Your task to perform on an android device: Is it going to rain tomorrow? Image 0: 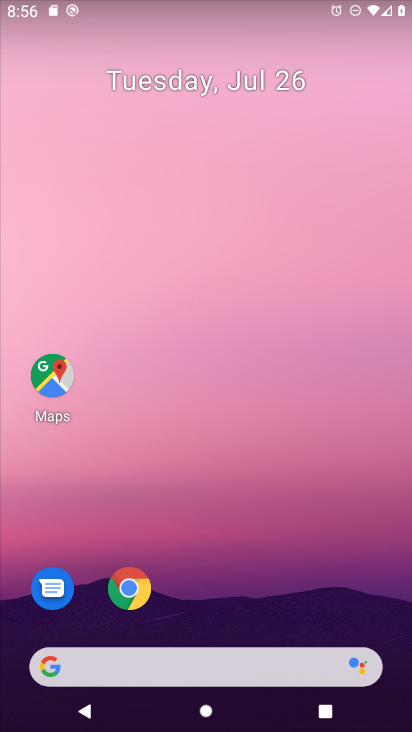
Step 0: drag from (195, 587) to (247, 102)
Your task to perform on an android device: Is it going to rain tomorrow? Image 1: 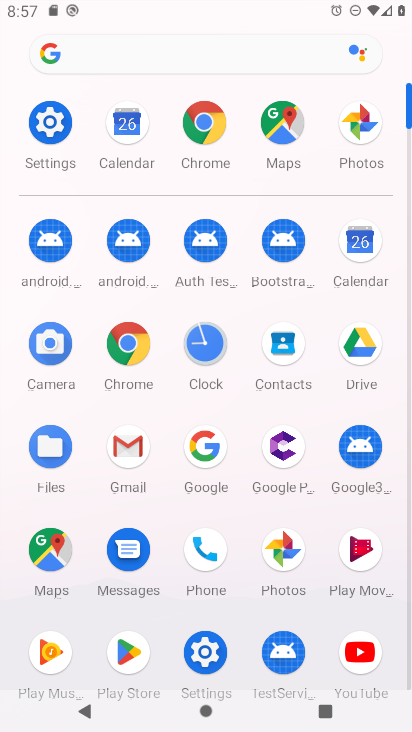
Step 1: click (199, 462)
Your task to perform on an android device: Is it going to rain tomorrow? Image 2: 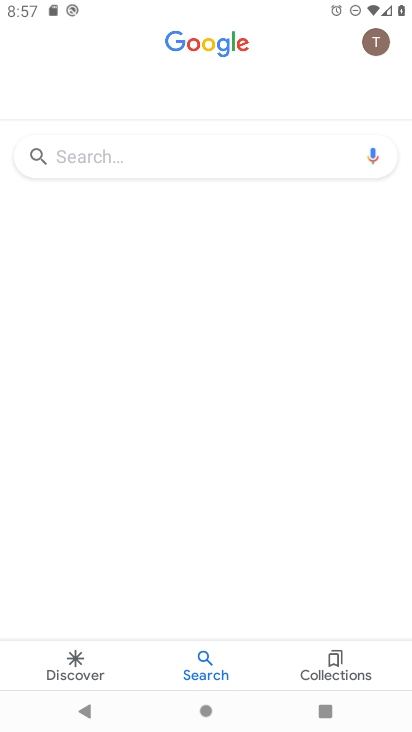
Step 2: click (238, 137)
Your task to perform on an android device: Is it going to rain tomorrow? Image 3: 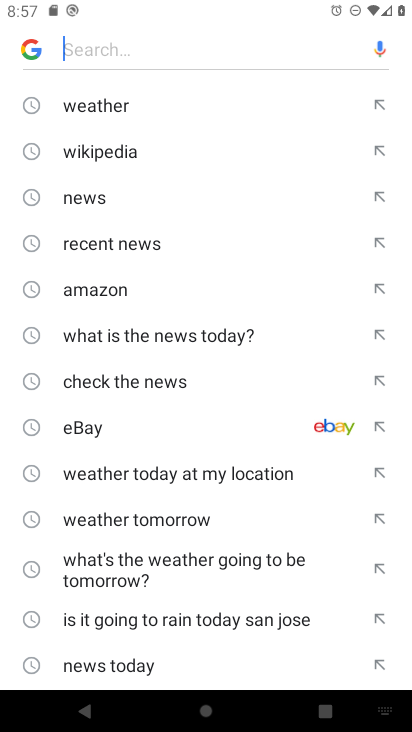
Step 3: click (108, 106)
Your task to perform on an android device: Is it going to rain tomorrow? Image 4: 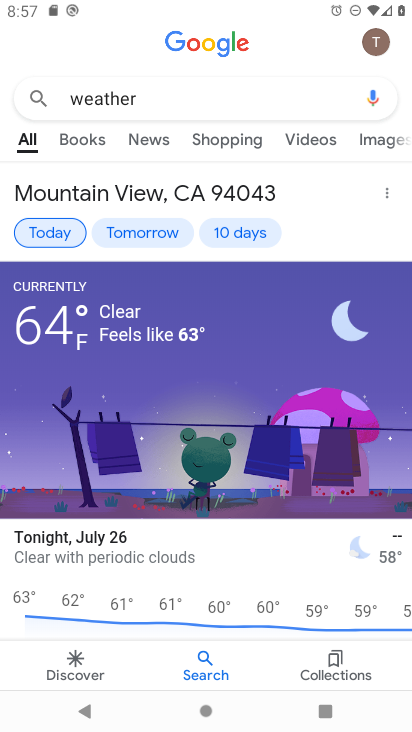
Step 4: click (136, 227)
Your task to perform on an android device: Is it going to rain tomorrow? Image 5: 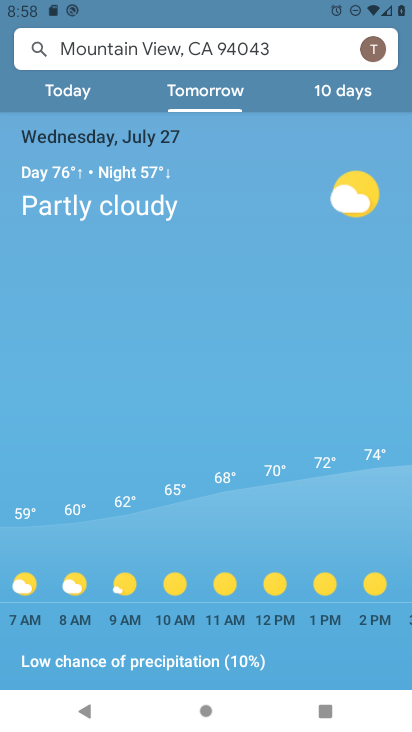
Step 5: press home button
Your task to perform on an android device: Is it going to rain tomorrow? Image 6: 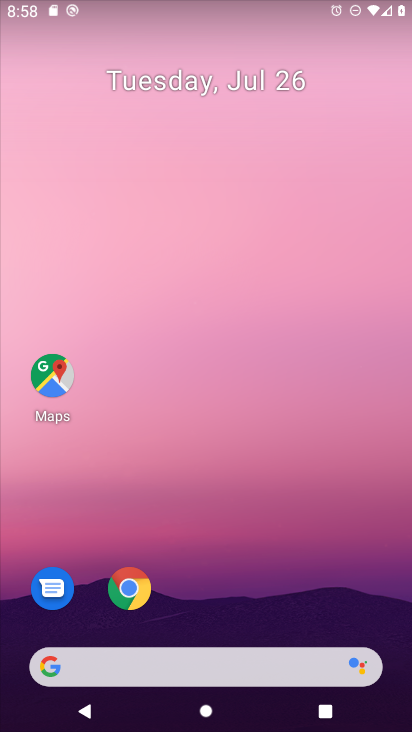
Step 6: drag from (198, 620) to (328, 3)
Your task to perform on an android device: Is it going to rain tomorrow? Image 7: 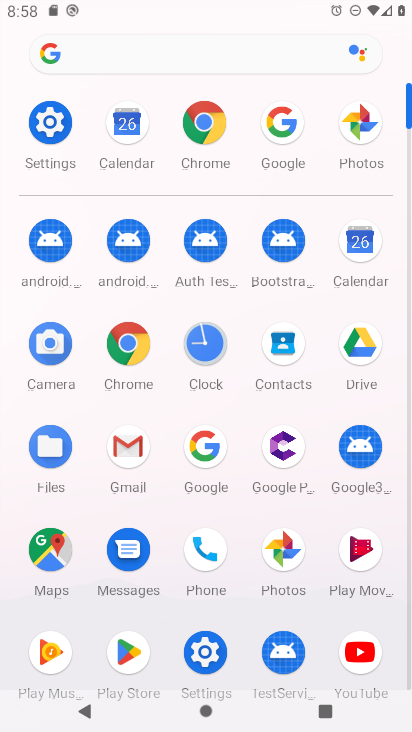
Step 7: click (204, 451)
Your task to perform on an android device: Is it going to rain tomorrow? Image 8: 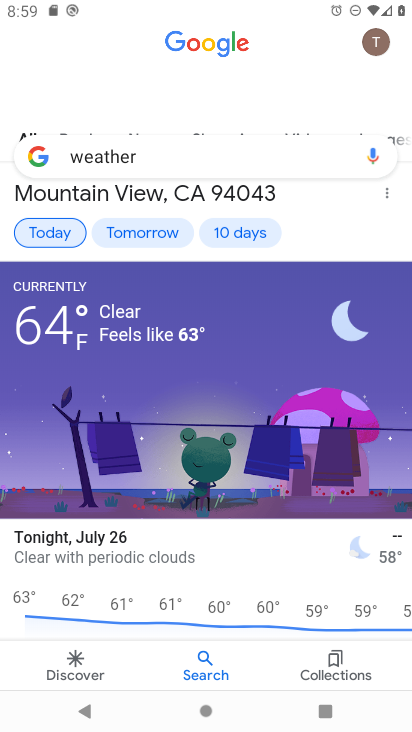
Step 8: click (150, 234)
Your task to perform on an android device: Is it going to rain tomorrow? Image 9: 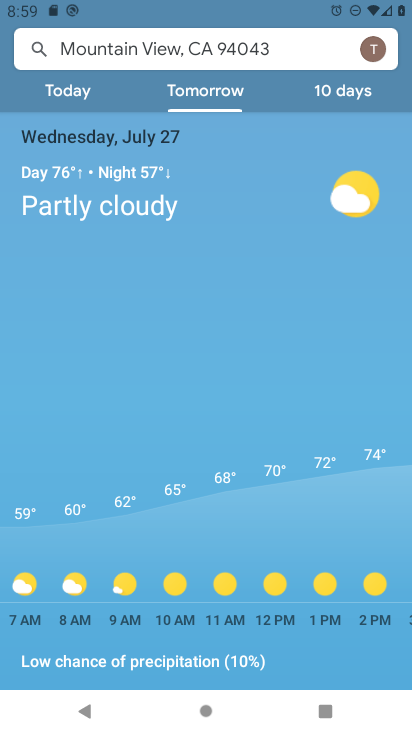
Step 9: task complete